Your task to perform on an android device: Open notification settings Image 0: 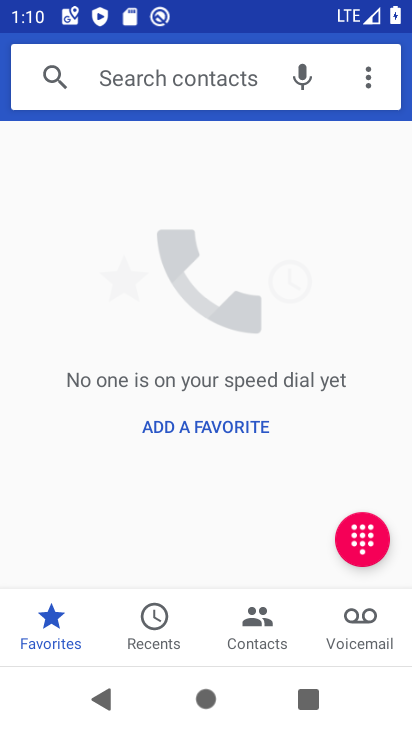
Step 0: press home button
Your task to perform on an android device: Open notification settings Image 1: 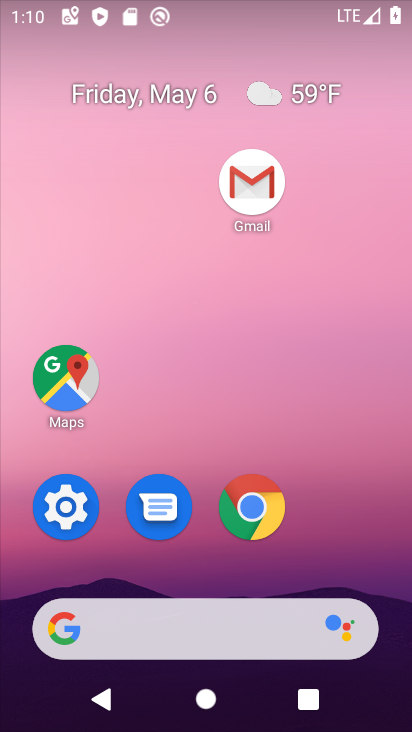
Step 1: click (67, 504)
Your task to perform on an android device: Open notification settings Image 2: 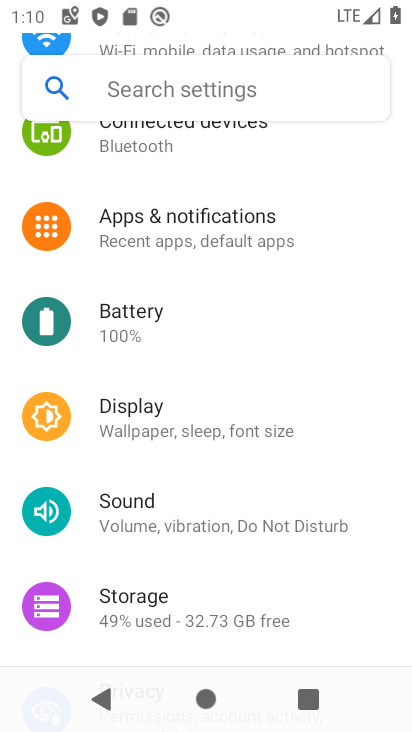
Step 2: click (198, 218)
Your task to perform on an android device: Open notification settings Image 3: 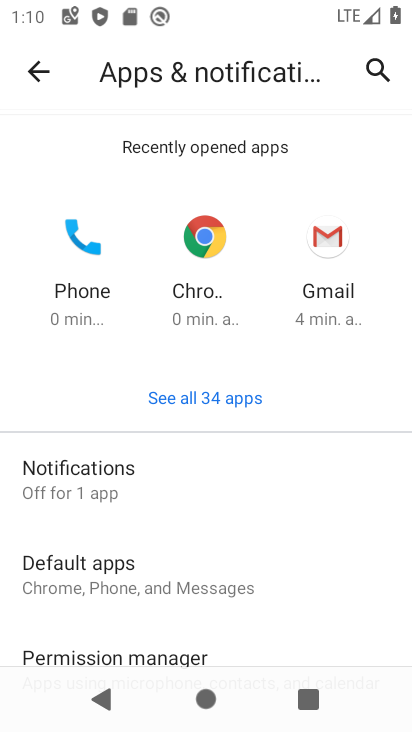
Step 3: click (86, 477)
Your task to perform on an android device: Open notification settings Image 4: 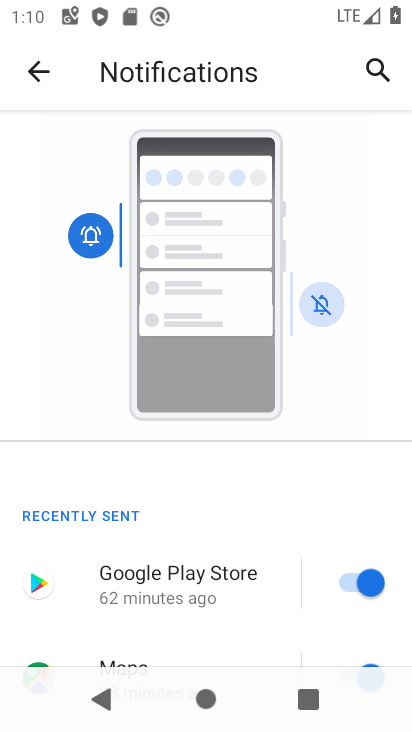
Step 4: task complete